Your task to perform on an android device: Go to notification settings Image 0: 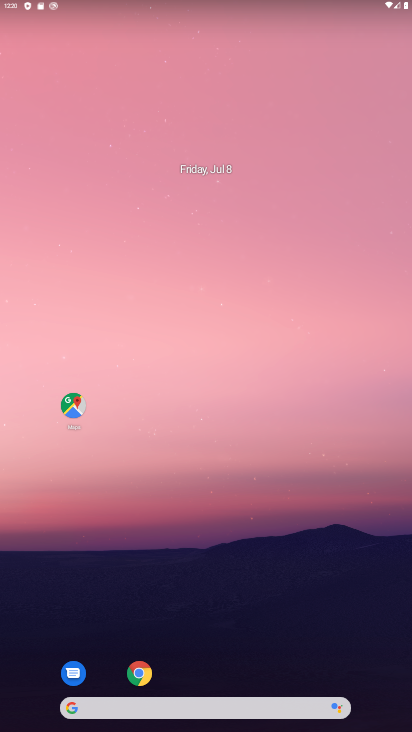
Step 0: drag from (206, 655) to (233, 128)
Your task to perform on an android device: Go to notification settings Image 1: 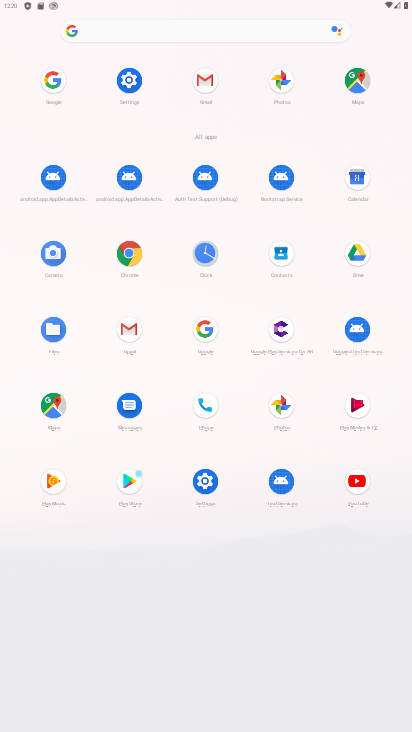
Step 1: click (126, 80)
Your task to perform on an android device: Go to notification settings Image 2: 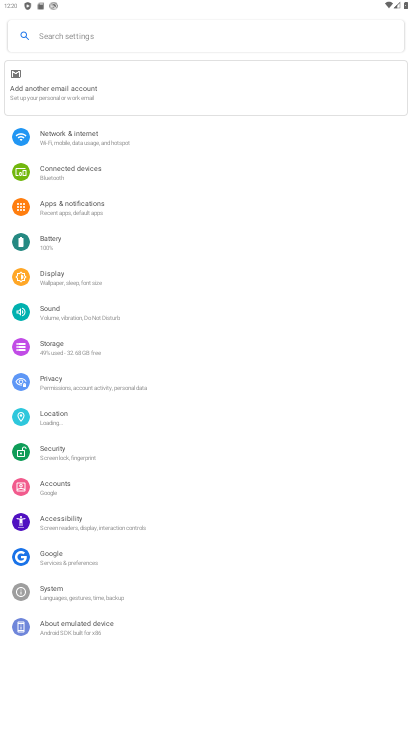
Step 2: click (82, 204)
Your task to perform on an android device: Go to notification settings Image 3: 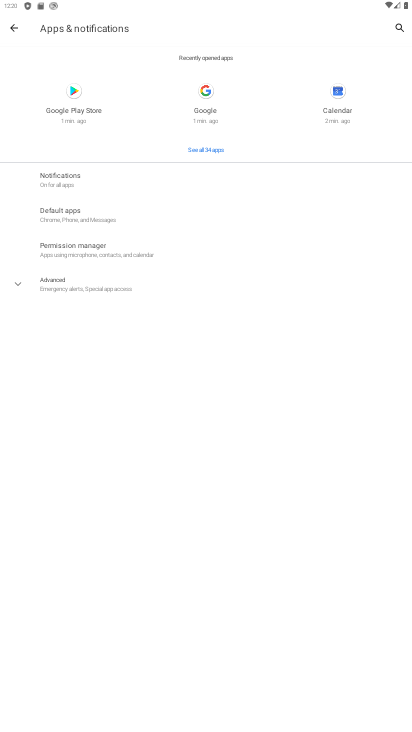
Step 3: click (76, 176)
Your task to perform on an android device: Go to notification settings Image 4: 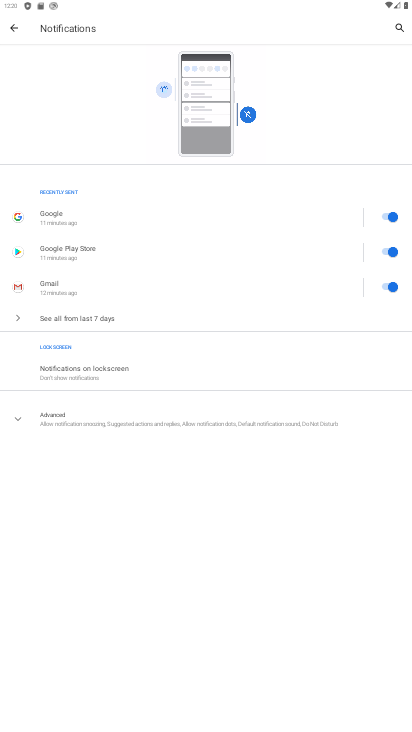
Step 4: task complete